Your task to perform on an android device: Open Google Maps Image 0: 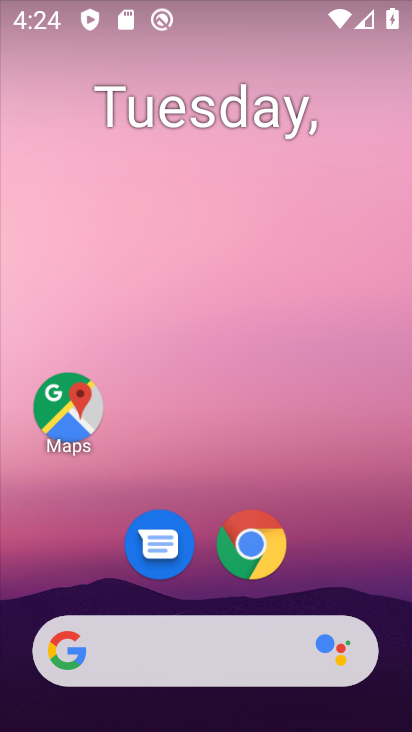
Step 0: click (68, 410)
Your task to perform on an android device: Open Google Maps Image 1: 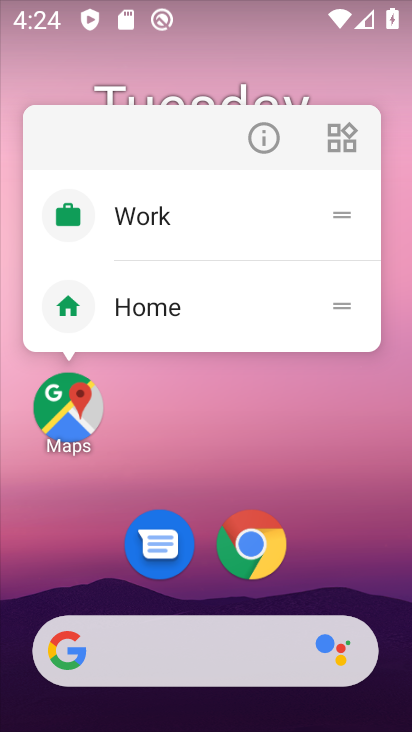
Step 1: click (72, 427)
Your task to perform on an android device: Open Google Maps Image 2: 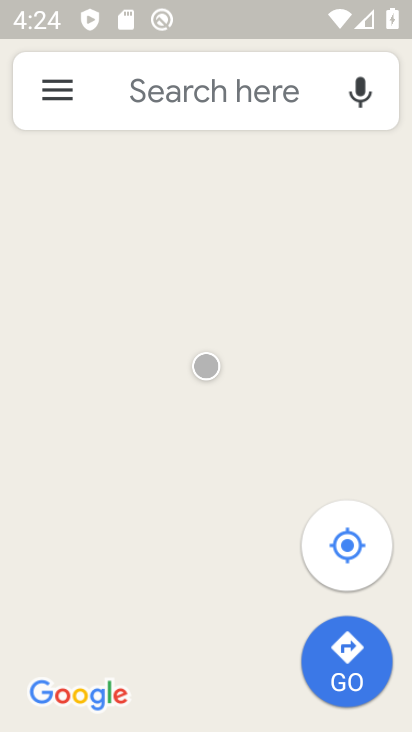
Step 2: task complete